Your task to perform on an android device: turn off notifications settings in the gmail app Image 0: 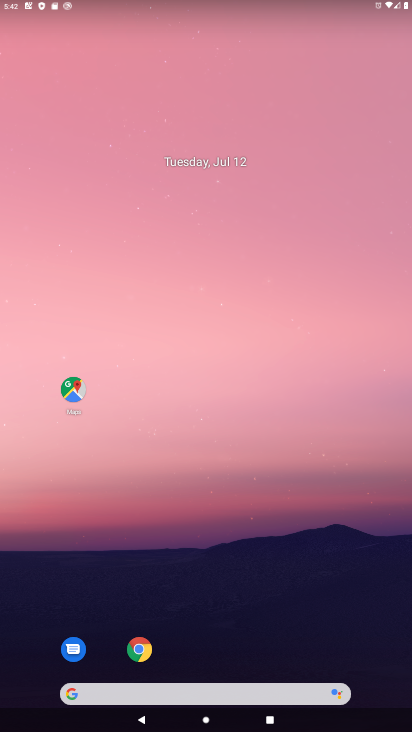
Step 0: drag from (207, 687) to (199, 181)
Your task to perform on an android device: turn off notifications settings in the gmail app Image 1: 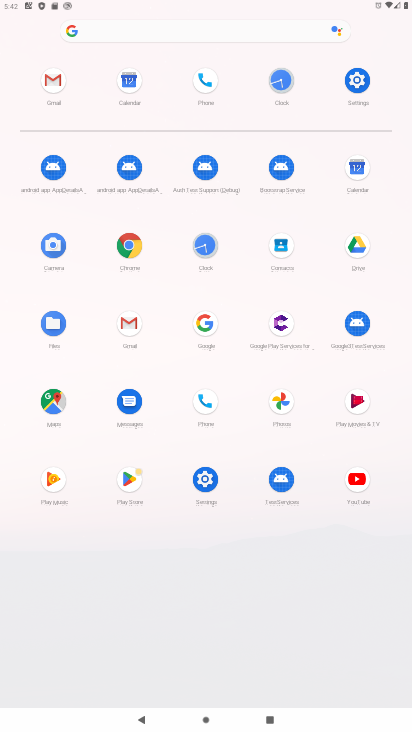
Step 1: click (52, 81)
Your task to perform on an android device: turn off notifications settings in the gmail app Image 2: 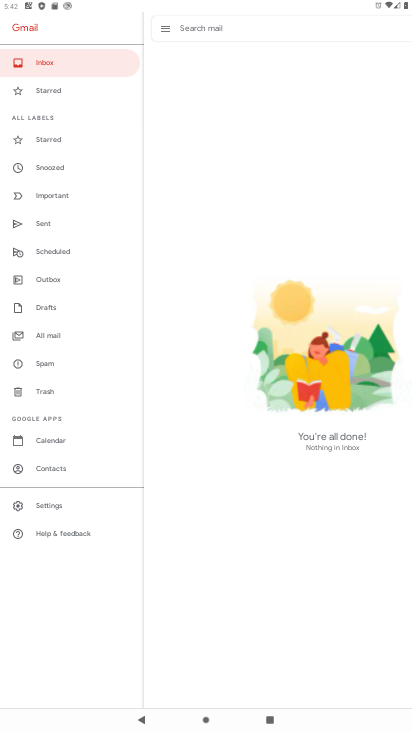
Step 2: click (55, 508)
Your task to perform on an android device: turn off notifications settings in the gmail app Image 3: 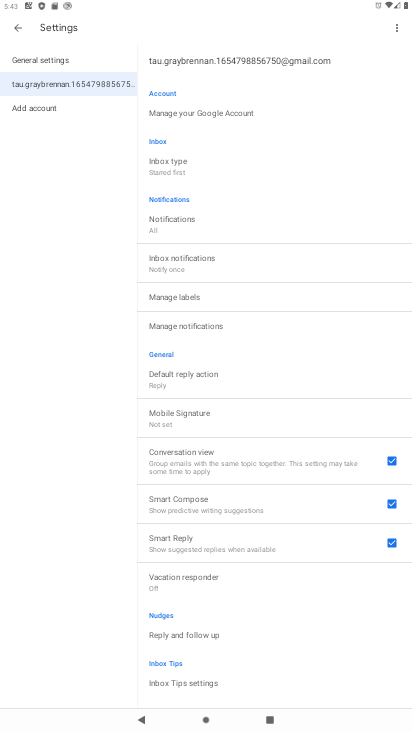
Step 3: click (190, 327)
Your task to perform on an android device: turn off notifications settings in the gmail app Image 4: 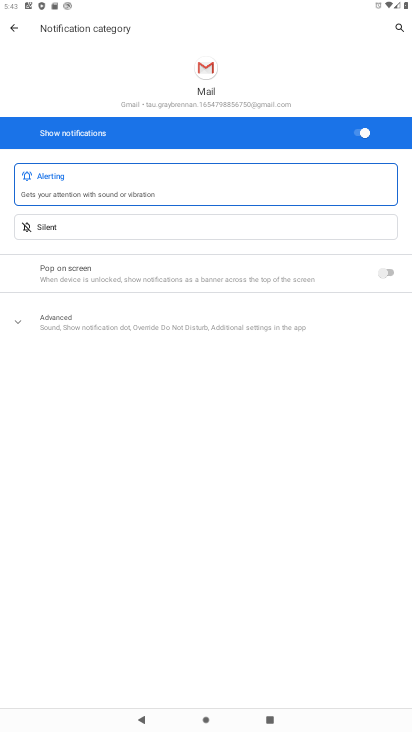
Step 4: click (359, 130)
Your task to perform on an android device: turn off notifications settings in the gmail app Image 5: 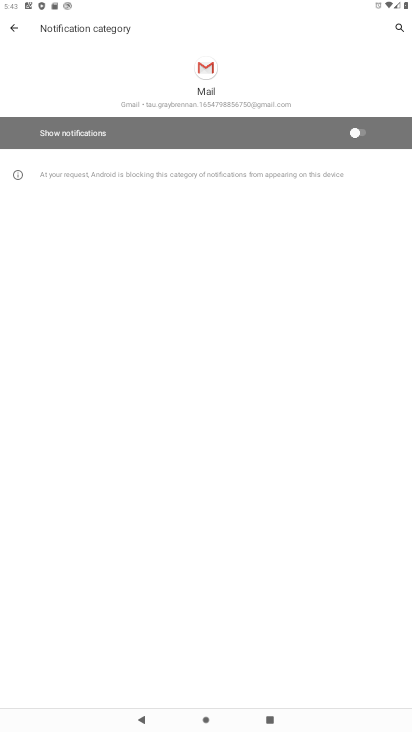
Step 5: task complete